Your task to perform on an android device: Open Google Maps Image 0: 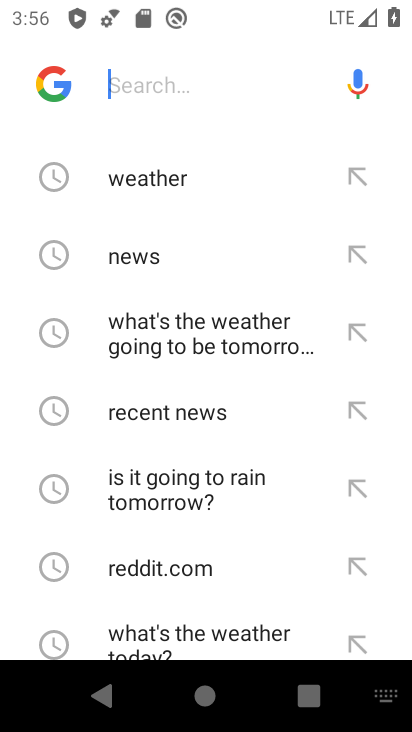
Step 0: press home button
Your task to perform on an android device: Open Google Maps Image 1: 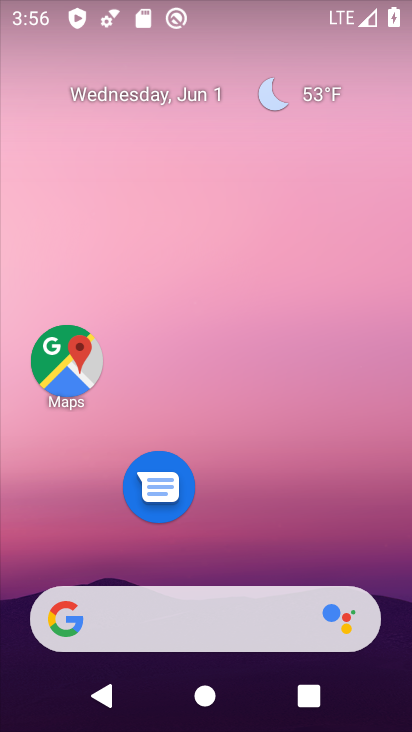
Step 1: drag from (191, 549) to (318, 2)
Your task to perform on an android device: Open Google Maps Image 2: 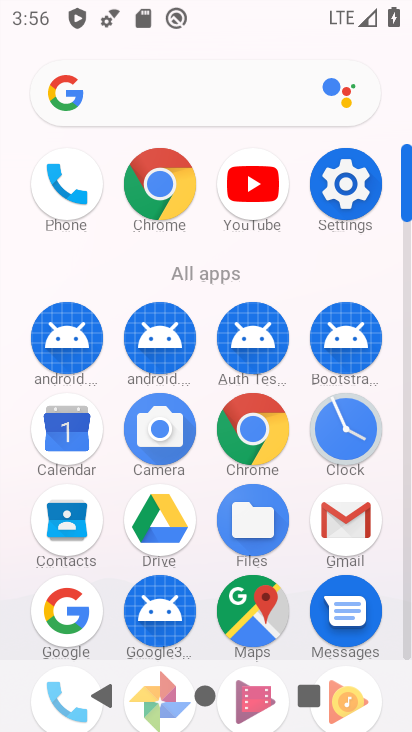
Step 2: click (263, 607)
Your task to perform on an android device: Open Google Maps Image 3: 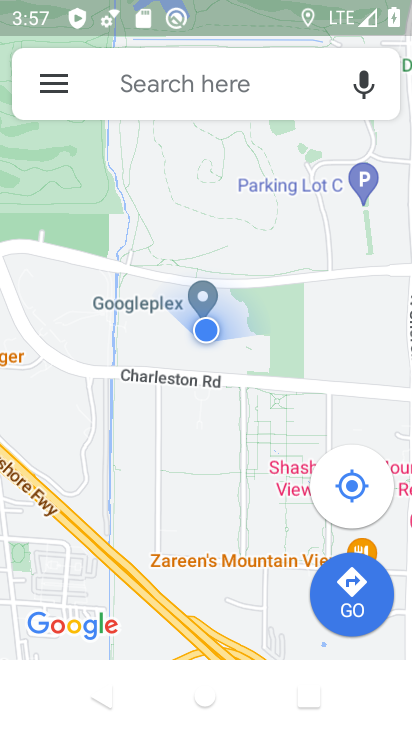
Step 3: task complete